Your task to perform on an android device: Go to Wikipedia Image 0: 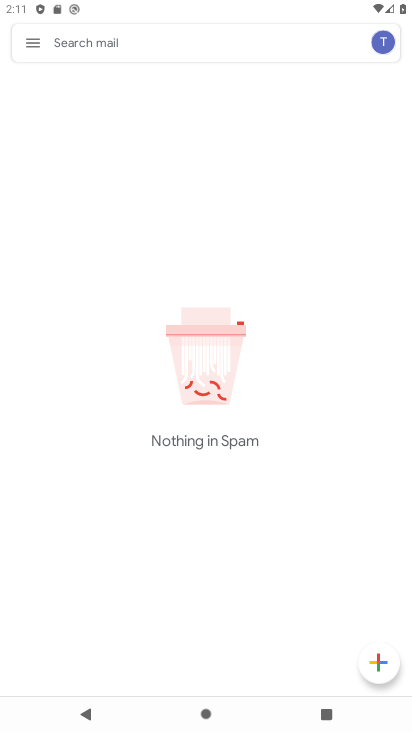
Step 0: press home button
Your task to perform on an android device: Go to Wikipedia Image 1: 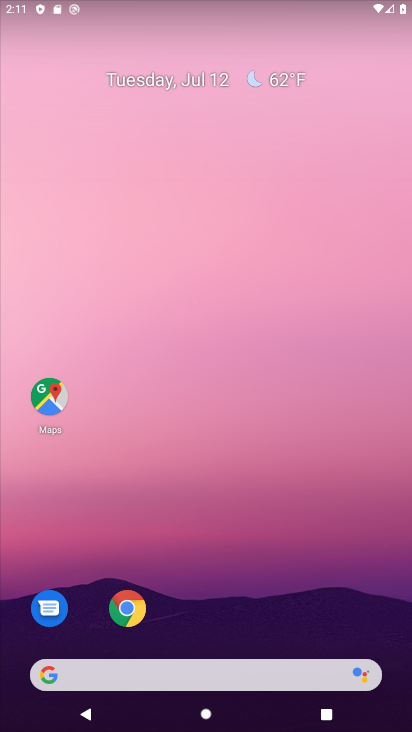
Step 1: click (126, 602)
Your task to perform on an android device: Go to Wikipedia Image 2: 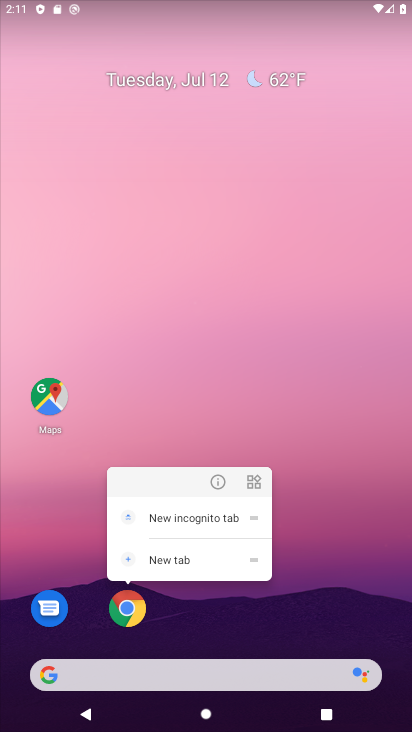
Step 2: click (125, 611)
Your task to perform on an android device: Go to Wikipedia Image 3: 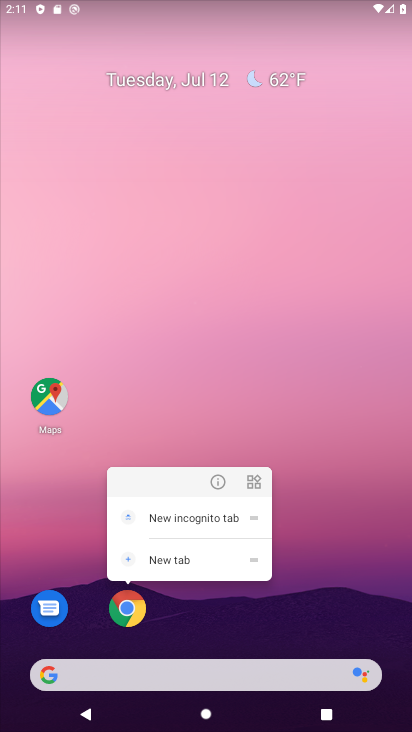
Step 3: click (126, 611)
Your task to perform on an android device: Go to Wikipedia Image 4: 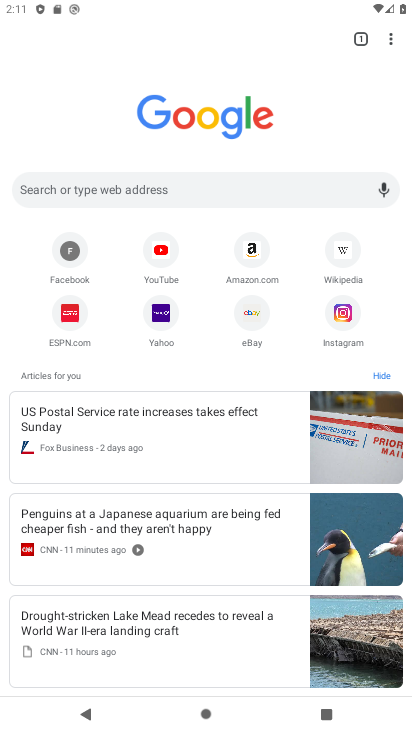
Step 4: click (339, 241)
Your task to perform on an android device: Go to Wikipedia Image 5: 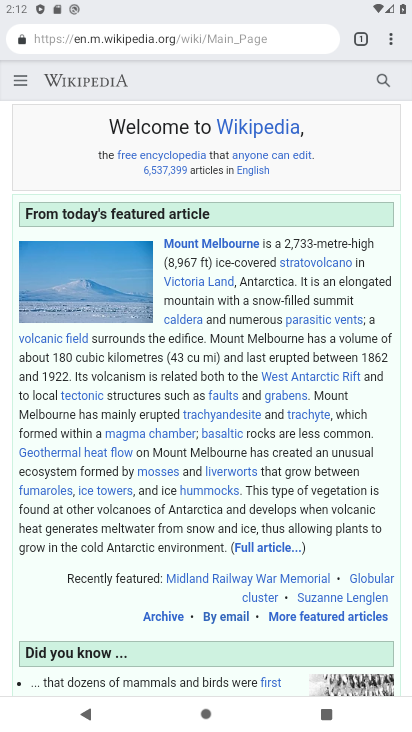
Step 5: task complete